Your task to perform on an android device: add a contact Image 0: 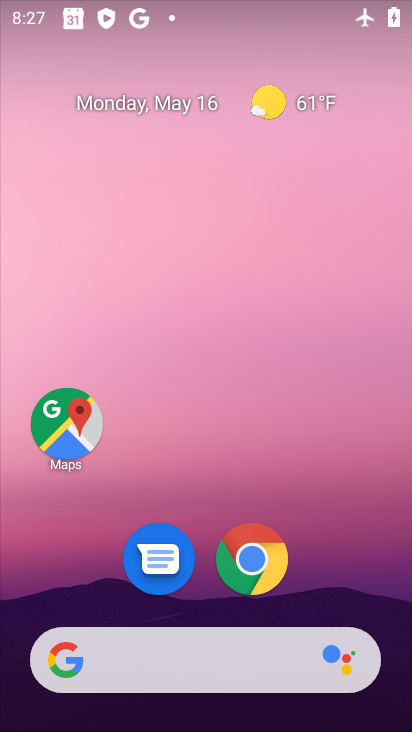
Step 0: drag from (220, 588) to (295, 95)
Your task to perform on an android device: add a contact Image 1: 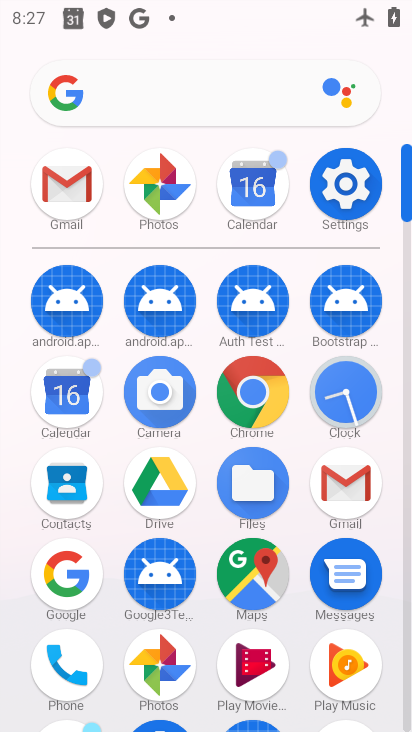
Step 1: click (65, 489)
Your task to perform on an android device: add a contact Image 2: 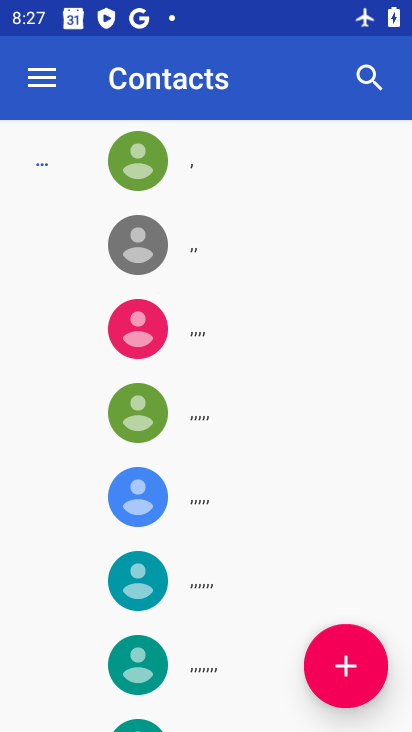
Step 2: click (336, 647)
Your task to perform on an android device: add a contact Image 3: 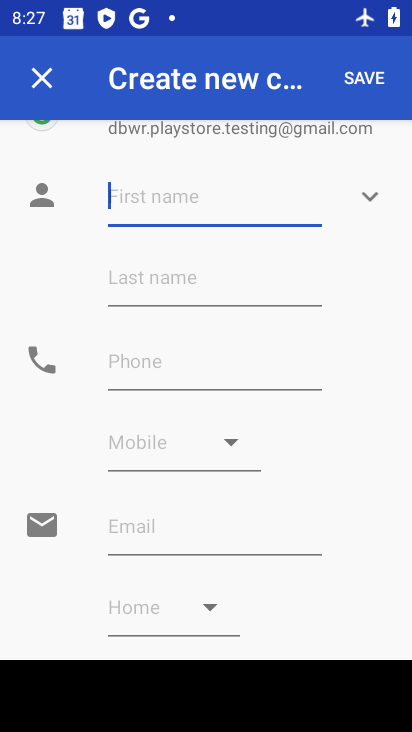
Step 3: type "vfvfdb"
Your task to perform on an android device: add a contact Image 4: 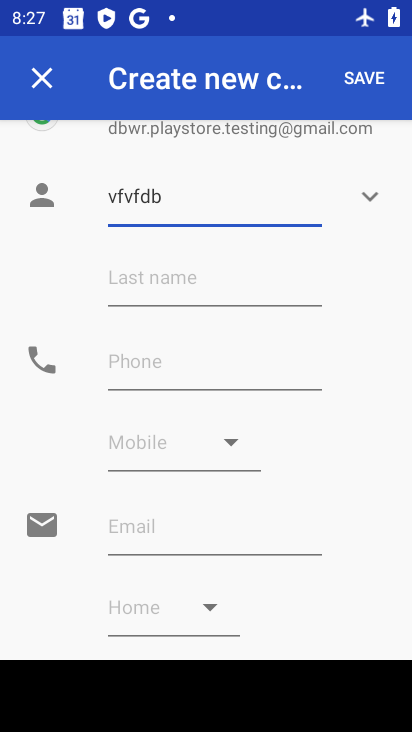
Step 4: click (145, 346)
Your task to perform on an android device: add a contact Image 5: 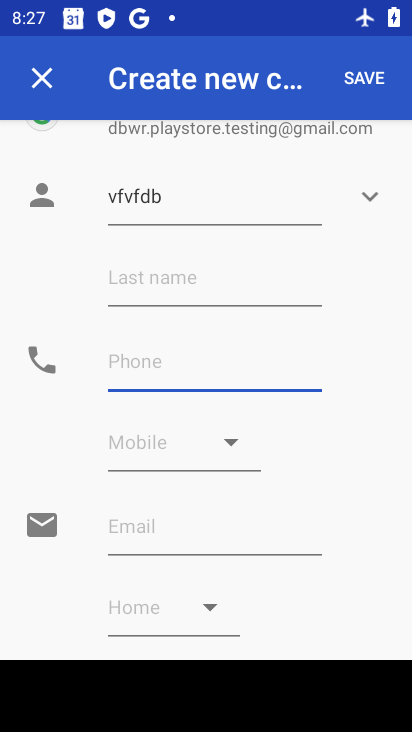
Step 5: type "67676"
Your task to perform on an android device: add a contact Image 6: 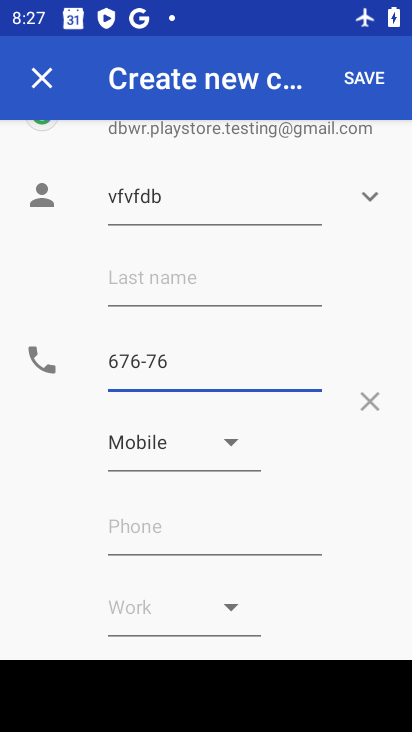
Step 6: click (356, 75)
Your task to perform on an android device: add a contact Image 7: 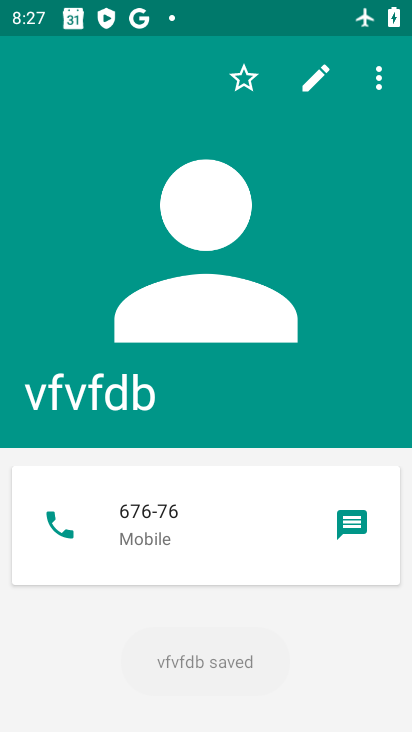
Step 7: task complete